Your task to perform on an android device: toggle pop-ups in chrome Image 0: 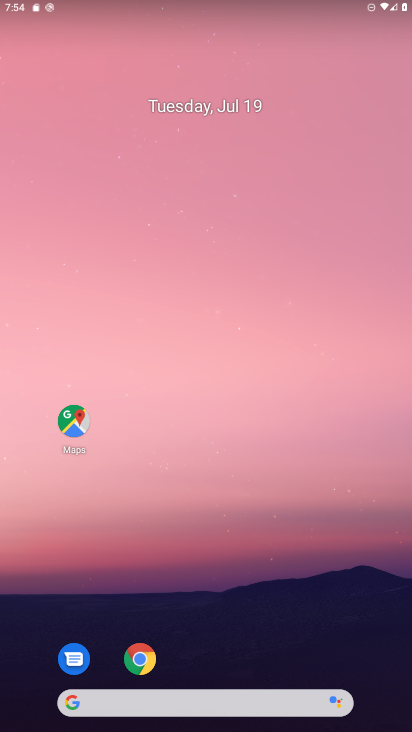
Step 0: drag from (212, 636) to (199, 101)
Your task to perform on an android device: toggle pop-ups in chrome Image 1: 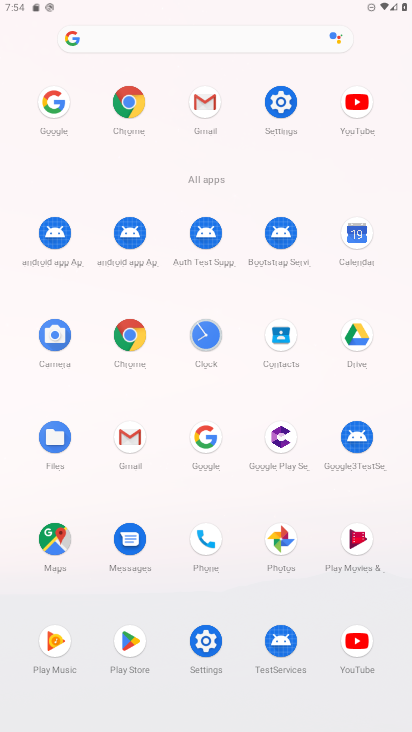
Step 1: click (124, 100)
Your task to perform on an android device: toggle pop-ups in chrome Image 2: 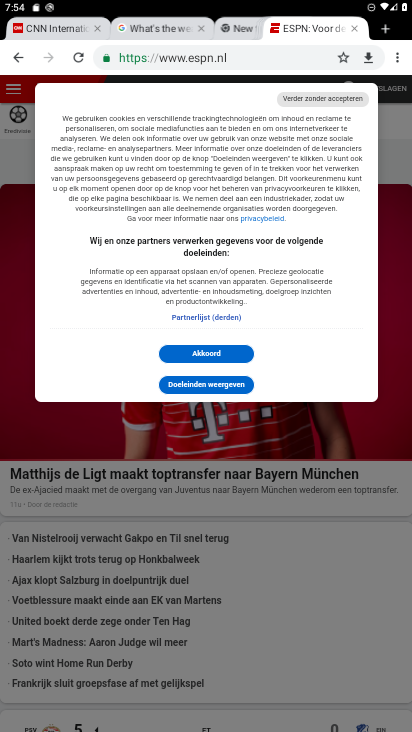
Step 2: click (406, 58)
Your task to perform on an android device: toggle pop-ups in chrome Image 3: 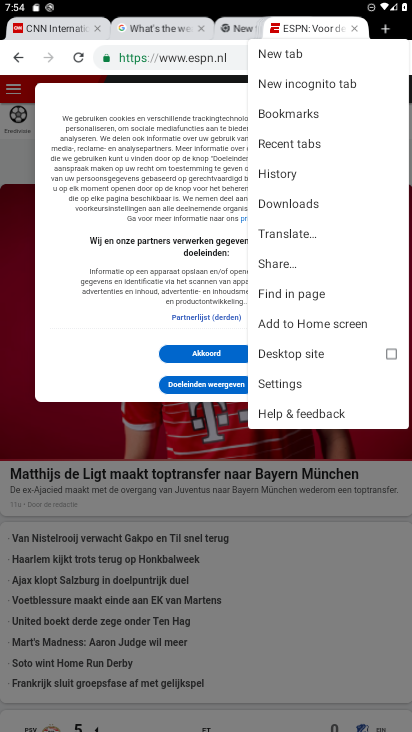
Step 3: click (295, 383)
Your task to perform on an android device: toggle pop-ups in chrome Image 4: 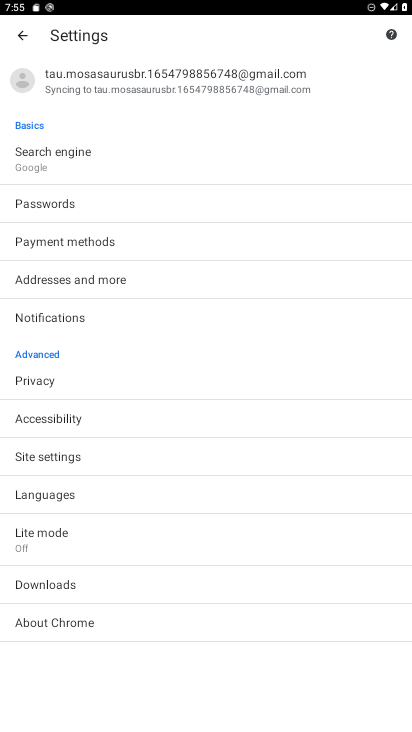
Step 4: click (89, 454)
Your task to perform on an android device: toggle pop-ups in chrome Image 5: 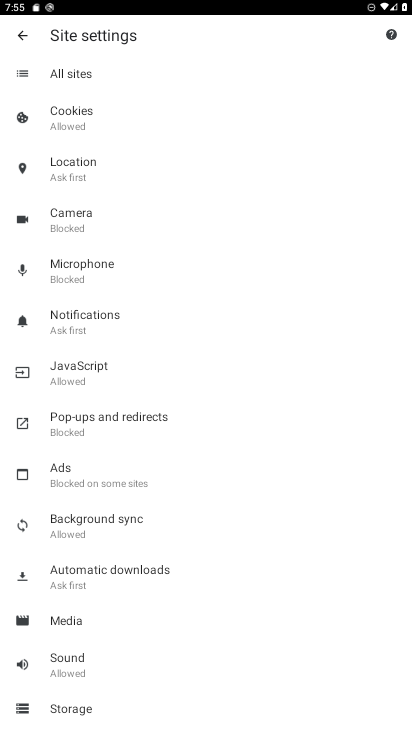
Step 5: click (129, 431)
Your task to perform on an android device: toggle pop-ups in chrome Image 6: 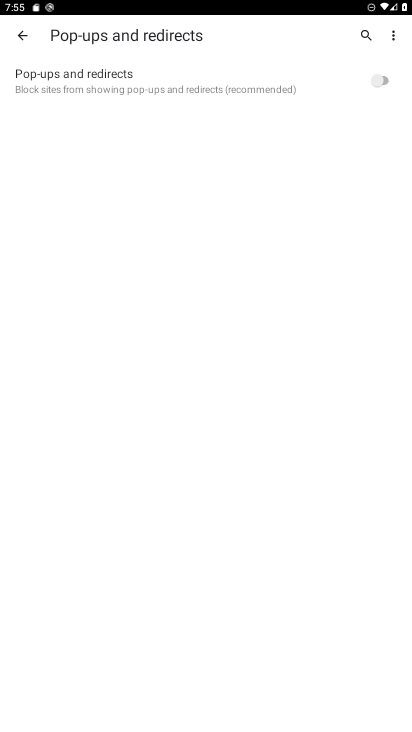
Step 6: click (378, 87)
Your task to perform on an android device: toggle pop-ups in chrome Image 7: 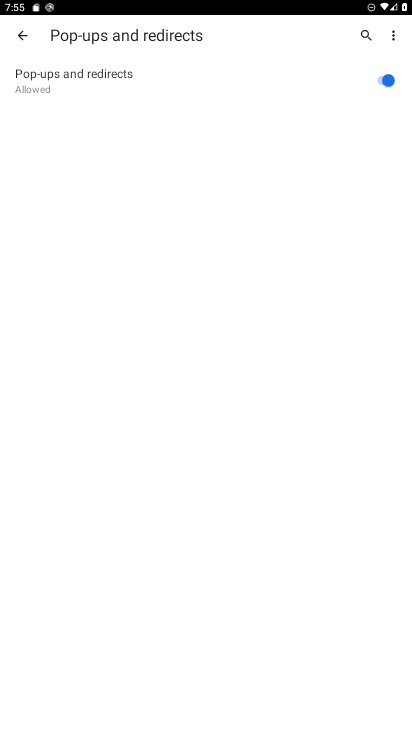
Step 7: task complete